Your task to perform on an android device: open sync settings in chrome Image 0: 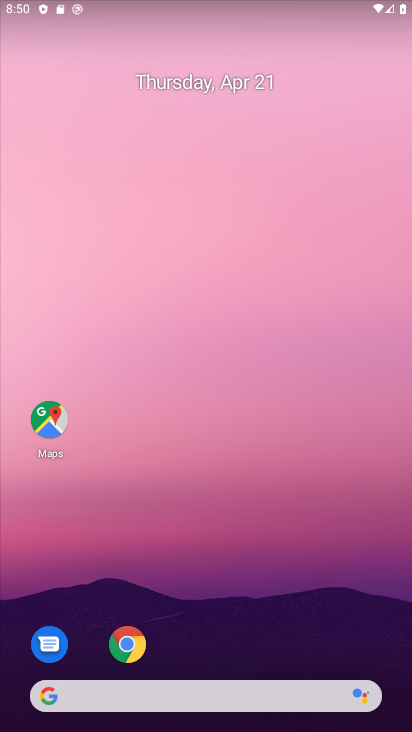
Step 0: click (126, 646)
Your task to perform on an android device: open sync settings in chrome Image 1: 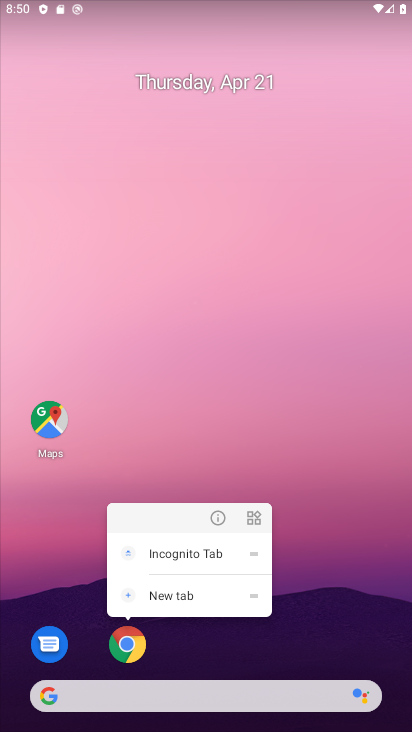
Step 1: click (132, 650)
Your task to perform on an android device: open sync settings in chrome Image 2: 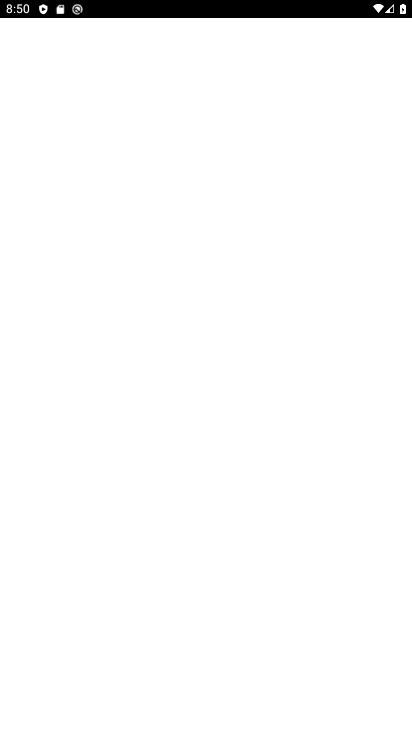
Step 2: click (132, 652)
Your task to perform on an android device: open sync settings in chrome Image 3: 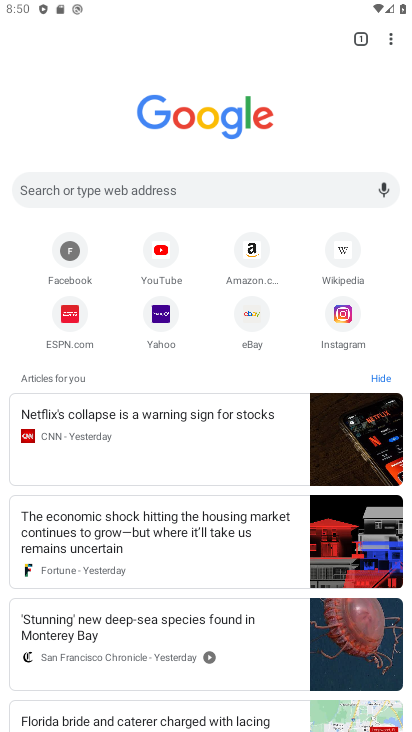
Step 3: click (398, 35)
Your task to perform on an android device: open sync settings in chrome Image 4: 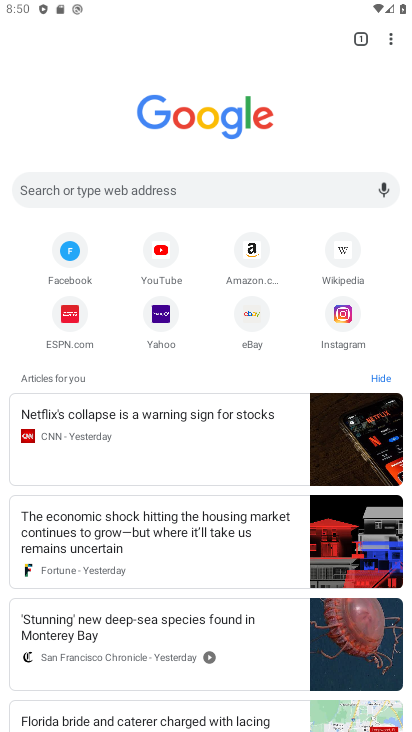
Step 4: drag from (400, 34) to (285, 319)
Your task to perform on an android device: open sync settings in chrome Image 5: 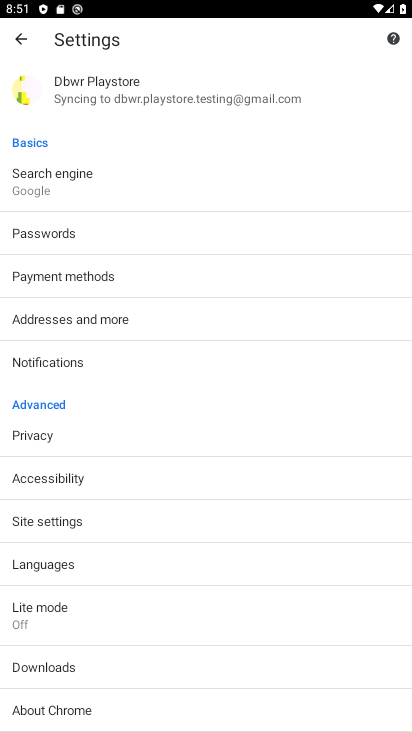
Step 5: click (110, 95)
Your task to perform on an android device: open sync settings in chrome Image 6: 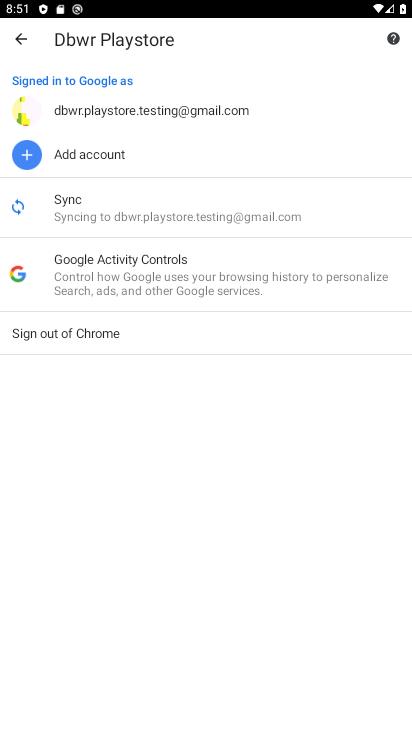
Step 6: click (128, 214)
Your task to perform on an android device: open sync settings in chrome Image 7: 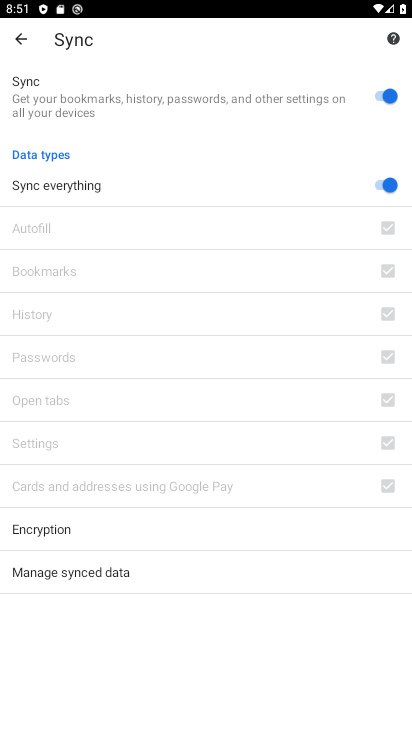
Step 7: task complete